Your task to perform on an android device: add a label to a message in the gmail app Image 0: 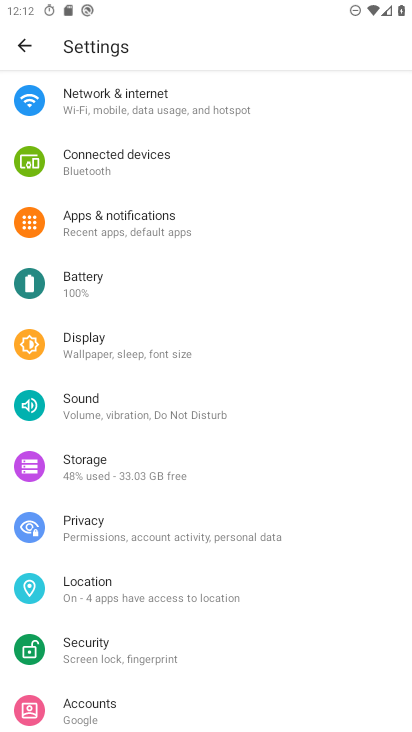
Step 0: press home button
Your task to perform on an android device: add a label to a message in the gmail app Image 1: 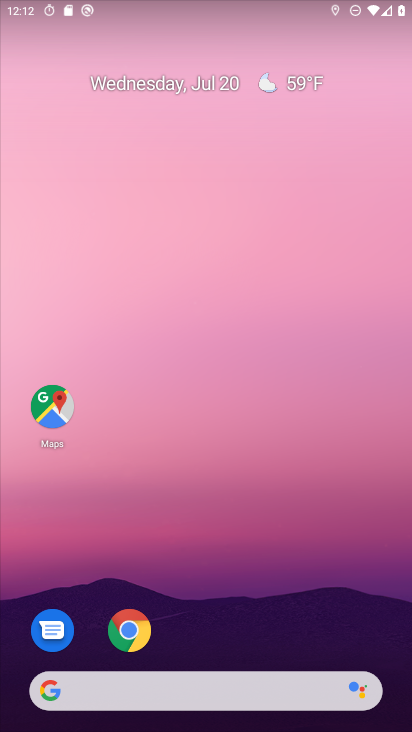
Step 1: drag from (184, 675) to (196, 97)
Your task to perform on an android device: add a label to a message in the gmail app Image 2: 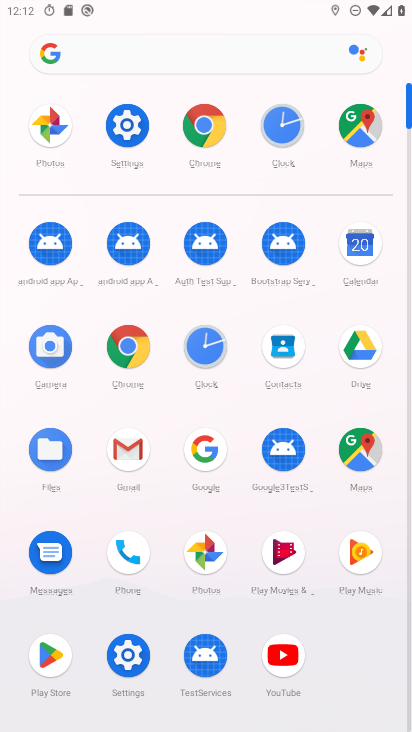
Step 2: click (127, 459)
Your task to perform on an android device: add a label to a message in the gmail app Image 3: 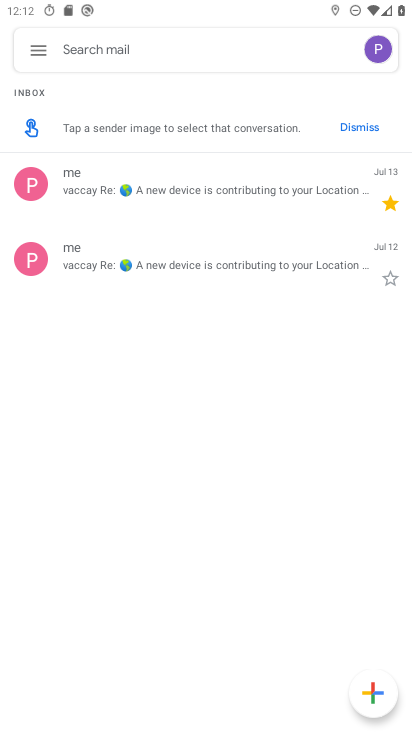
Step 3: click (201, 196)
Your task to perform on an android device: add a label to a message in the gmail app Image 4: 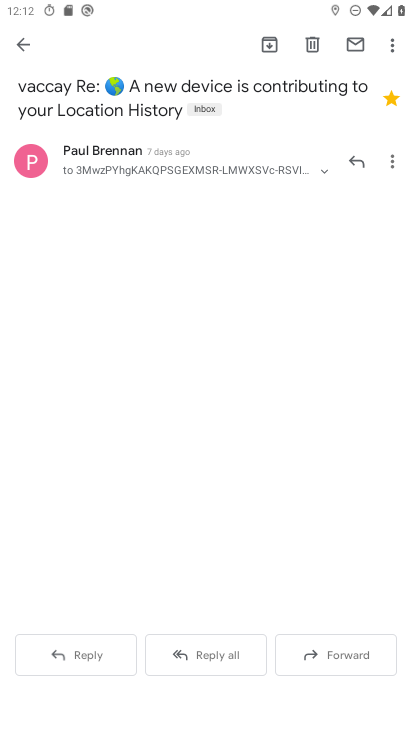
Step 4: click (389, 47)
Your task to perform on an android device: add a label to a message in the gmail app Image 5: 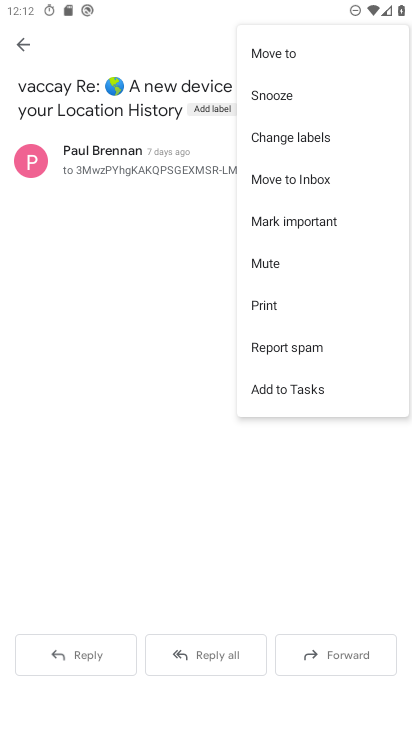
Step 5: click (284, 143)
Your task to perform on an android device: add a label to a message in the gmail app Image 6: 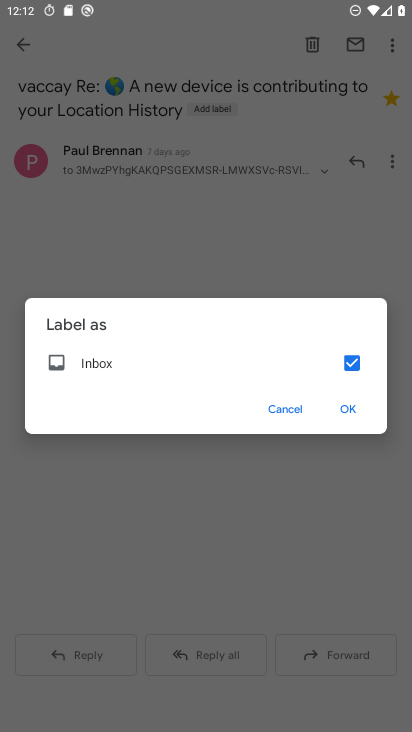
Step 6: click (344, 410)
Your task to perform on an android device: add a label to a message in the gmail app Image 7: 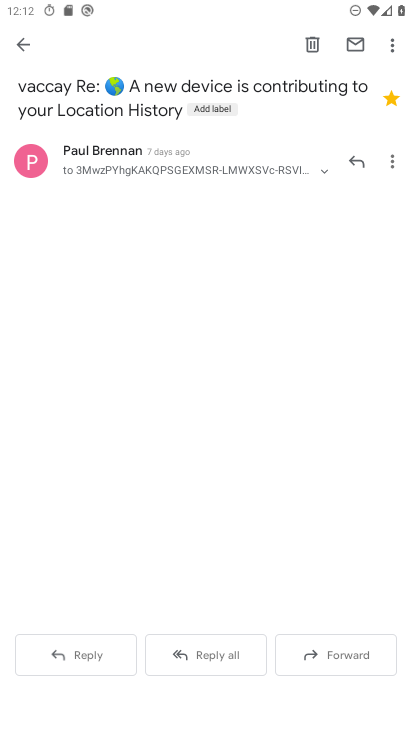
Step 7: task complete